Your task to perform on an android device: When is my next appointment? Image 0: 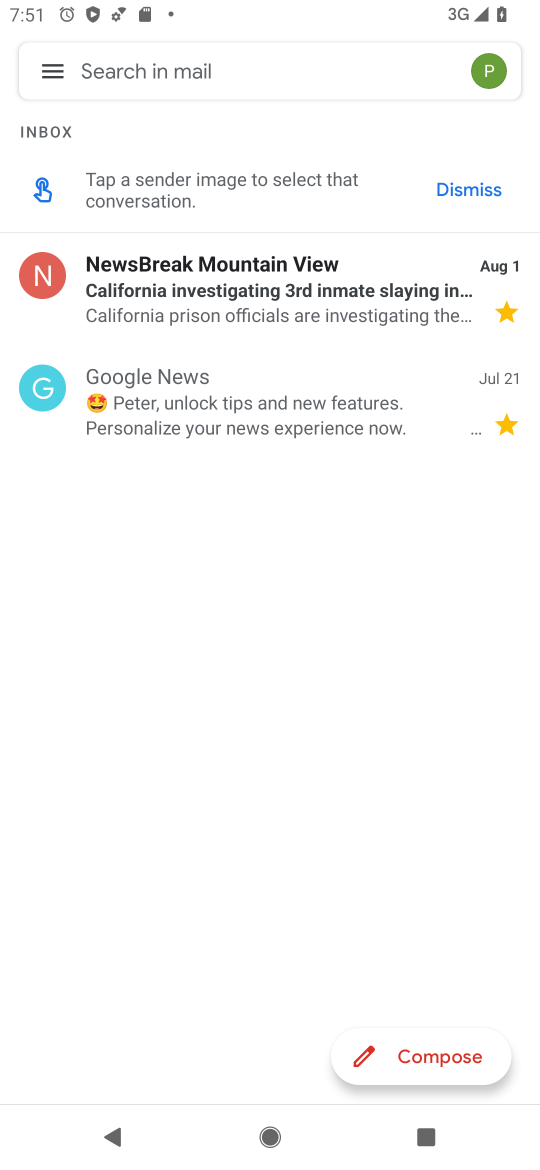
Step 0: press back button
Your task to perform on an android device: When is my next appointment? Image 1: 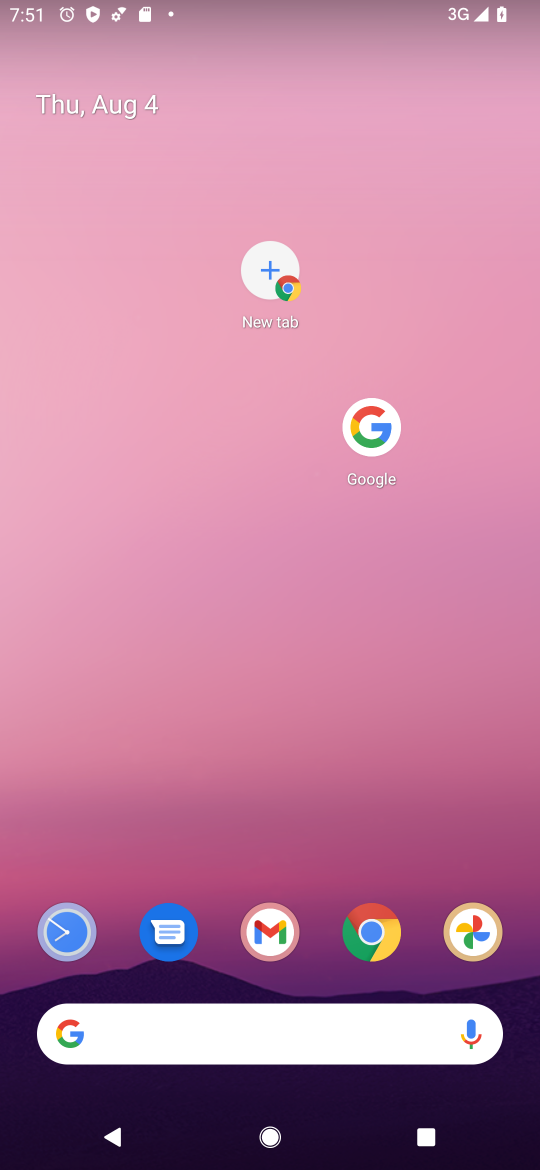
Step 1: click (347, 509)
Your task to perform on an android device: When is my next appointment? Image 2: 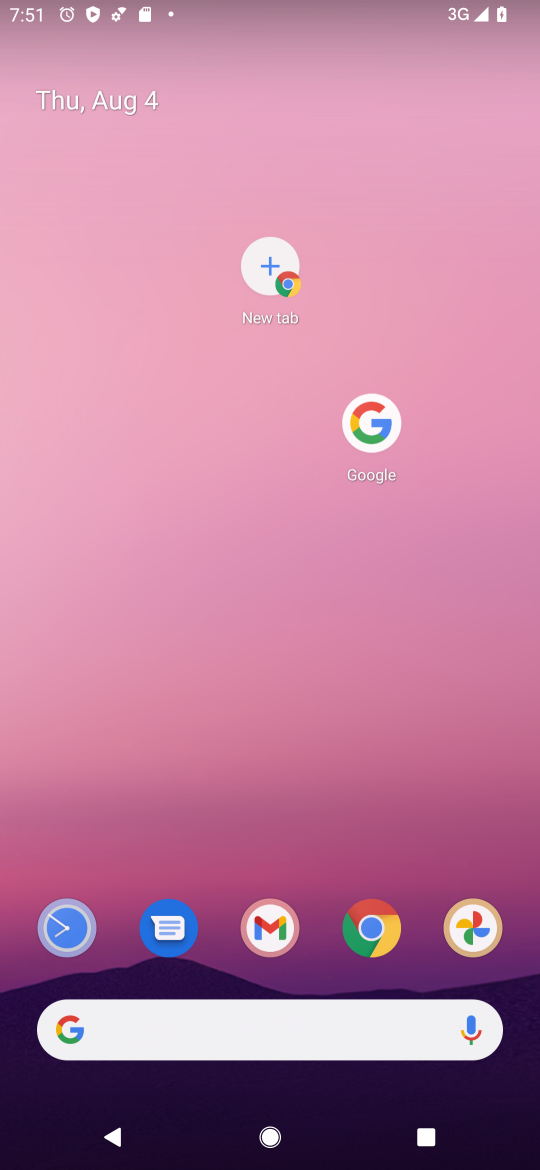
Step 2: drag from (210, 908) to (338, 177)
Your task to perform on an android device: When is my next appointment? Image 3: 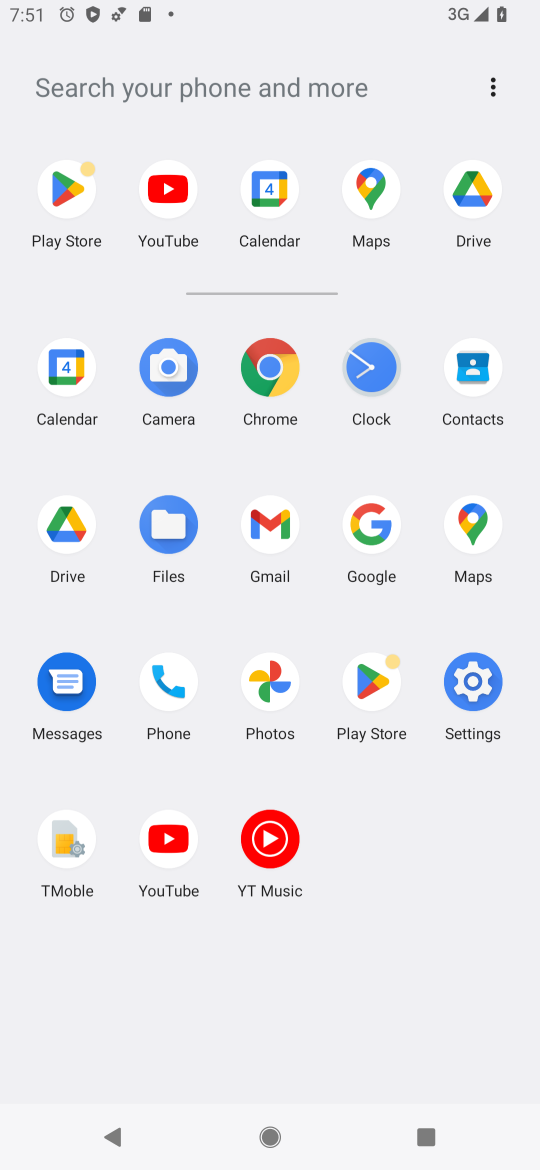
Step 3: click (415, 59)
Your task to perform on an android device: When is my next appointment? Image 4: 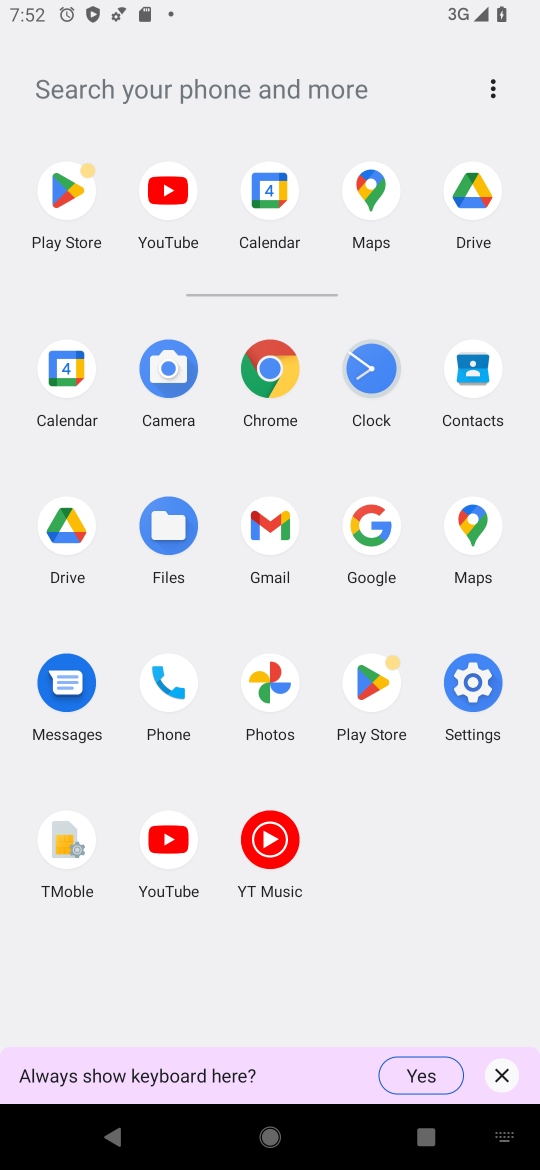
Step 4: click (70, 379)
Your task to perform on an android device: When is my next appointment? Image 5: 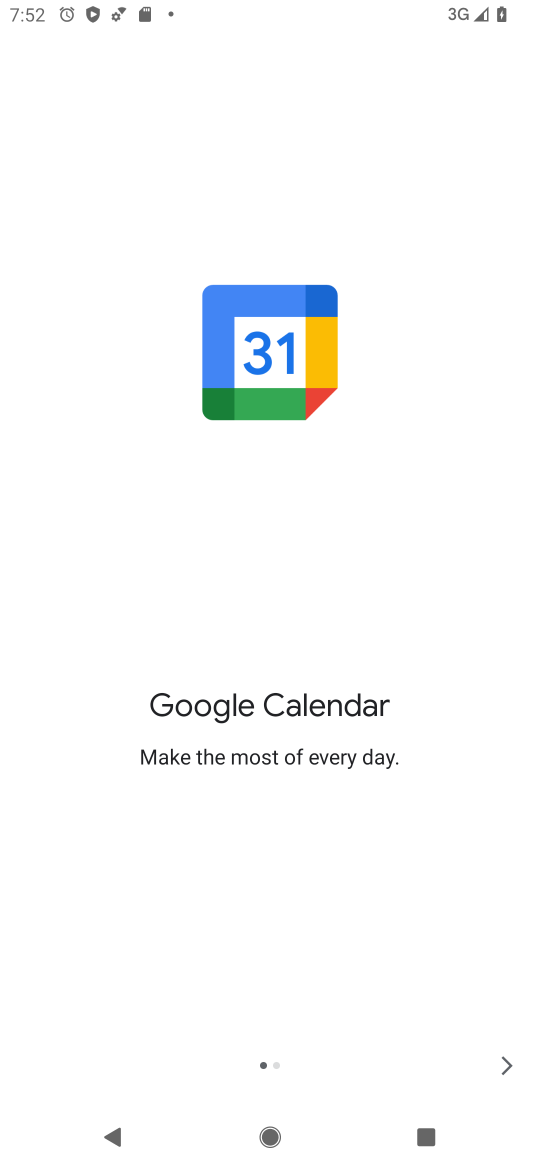
Step 5: click (507, 1054)
Your task to perform on an android device: When is my next appointment? Image 6: 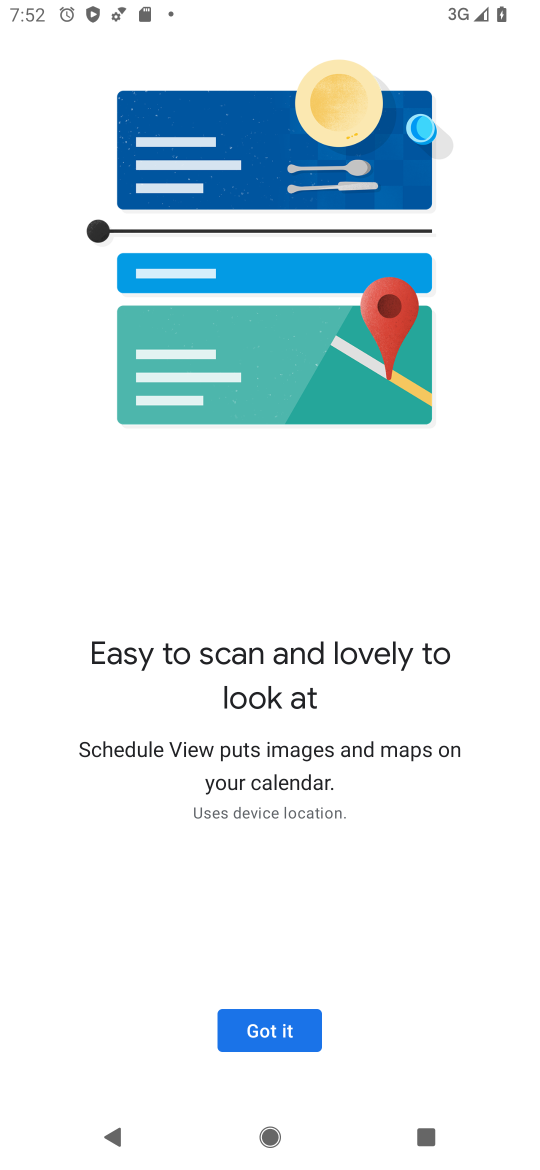
Step 6: click (280, 1029)
Your task to perform on an android device: When is my next appointment? Image 7: 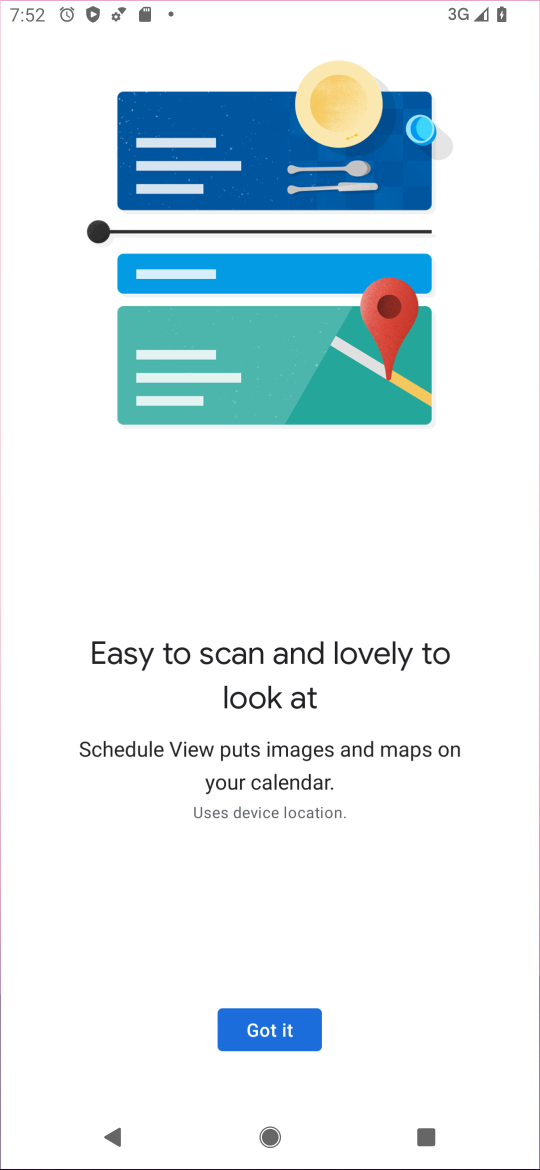
Step 7: click (280, 1029)
Your task to perform on an android device: When is my next appointment? Image 8: 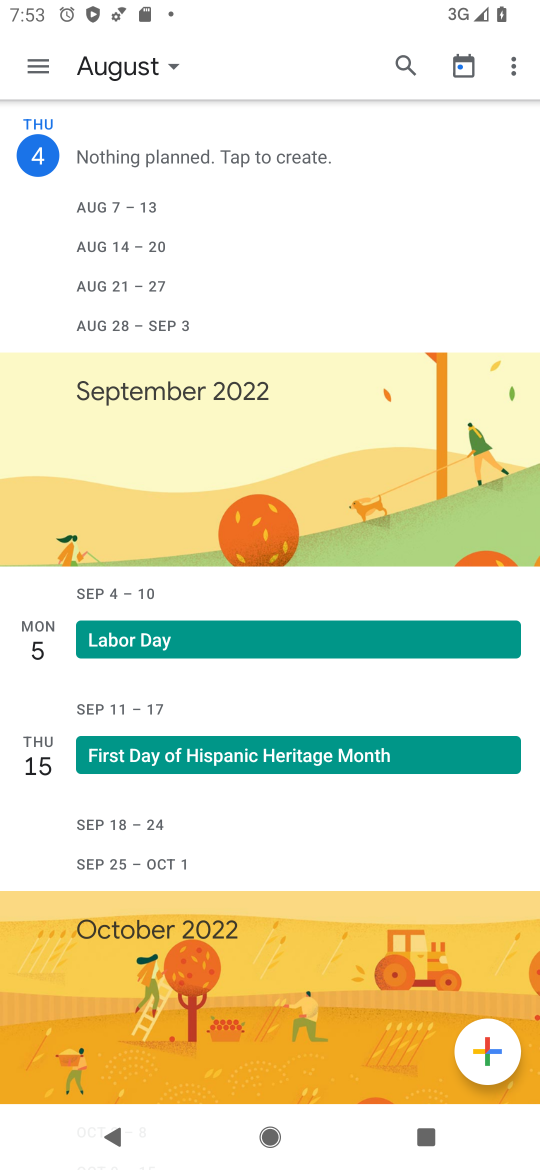
Step 8: click (169, 60)
Your task to perform on an android device: When is my next appointment? Image 9: 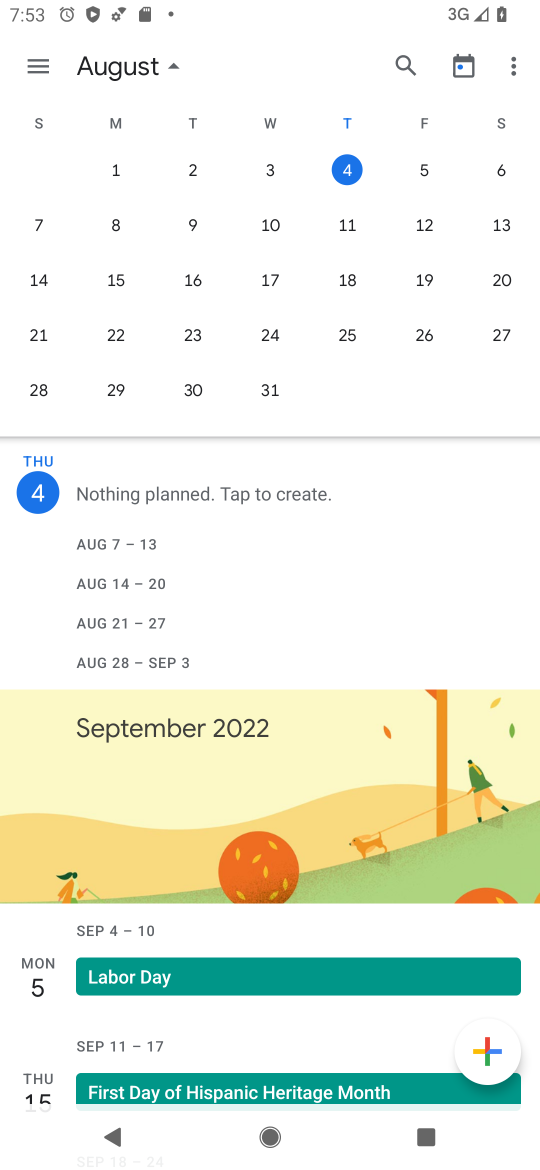
Step 9: click (426, 23)
Your task to perform on an android device: When is my next appointment? Image 10: 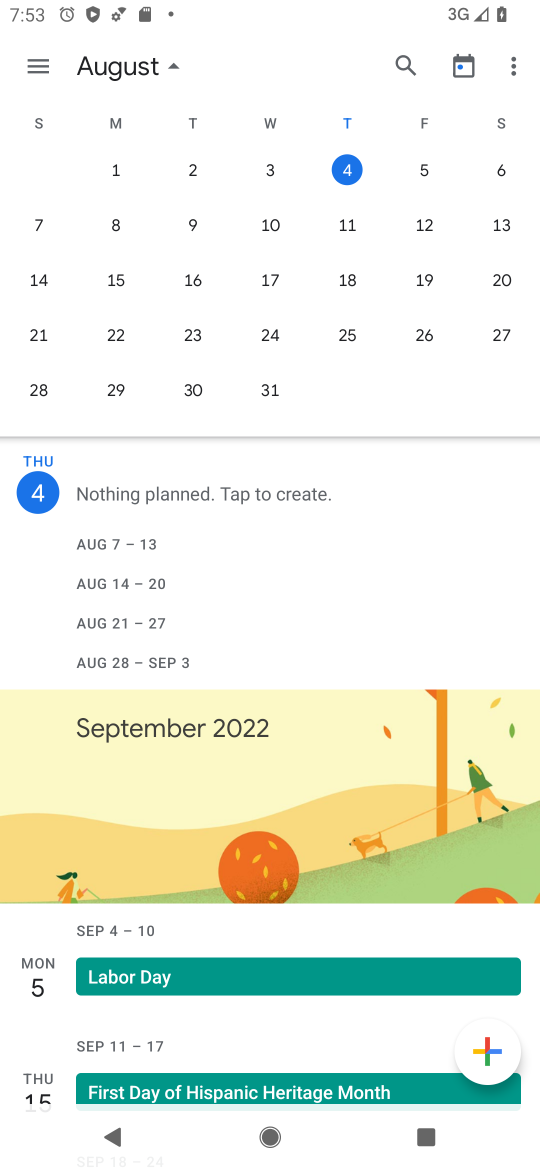
Step 10: task complete